Your task to perform on an android device: turn off javascript in the chrome app Image 0: 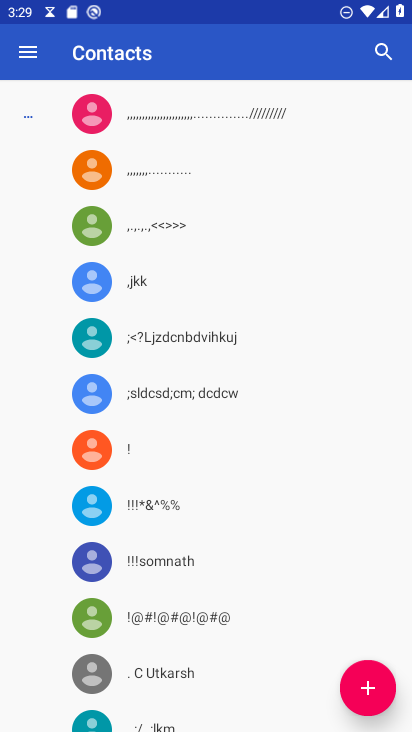
Step 0: press home button
Your task to perform on an android device: turn off javascript in the chrome app Image 1: 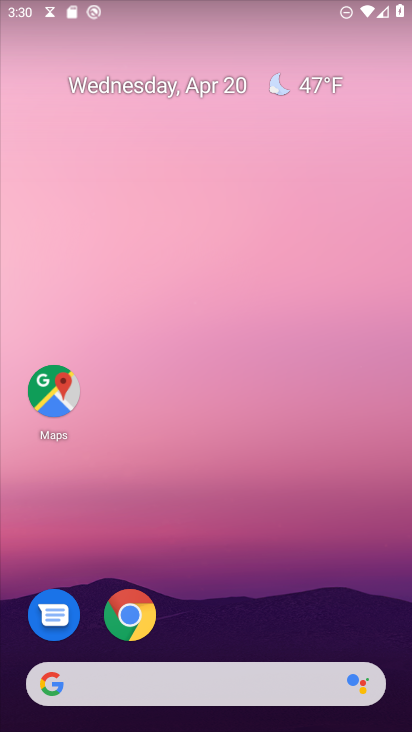
Step 1: click (132, 614)
Your task to perform on an android device: turn off javascript in the chrome app Image 2: 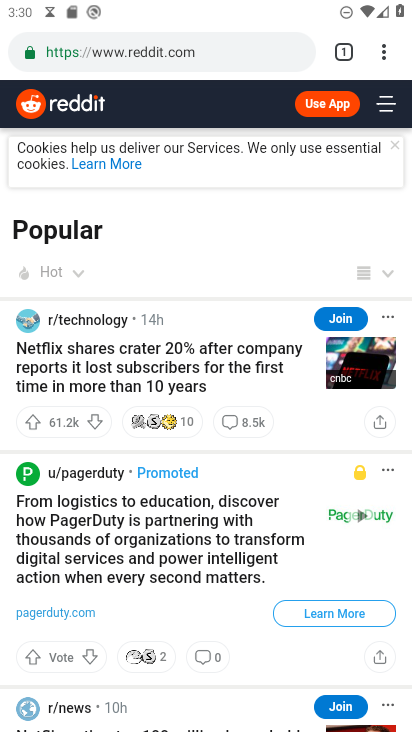
Step 2: click (384, 43)
Your task to perform on an android device: turn off javascript in the chrome app Image 3: 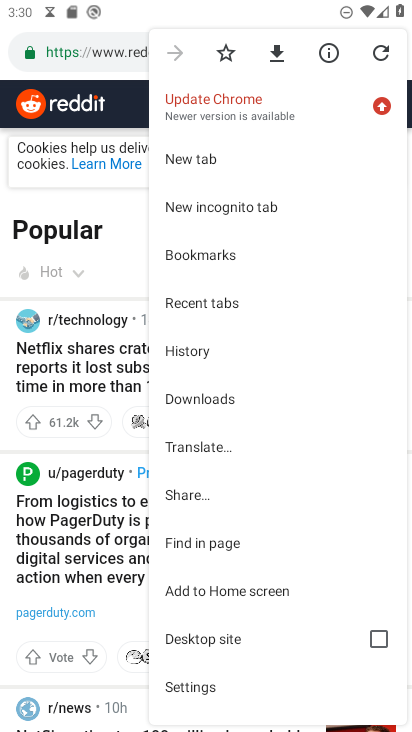
Step 3: click (199, 686)
Your task to perform on an android device: turn off javascript in the chrome app Image 4: 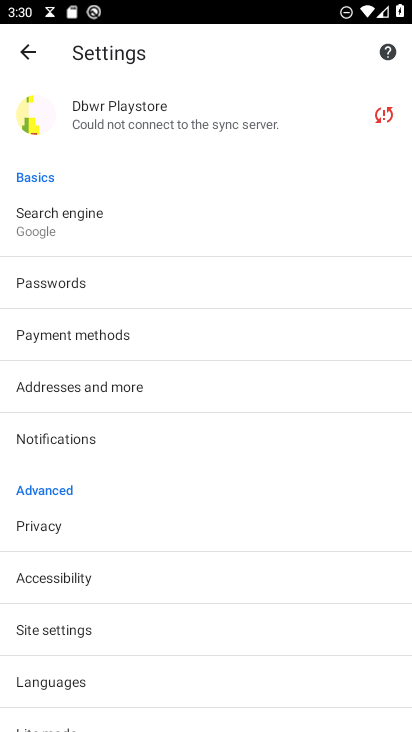
Step 4: click (73, 630)
Your task to perform on an android device: turn off javascript in the chrome app Image 5: 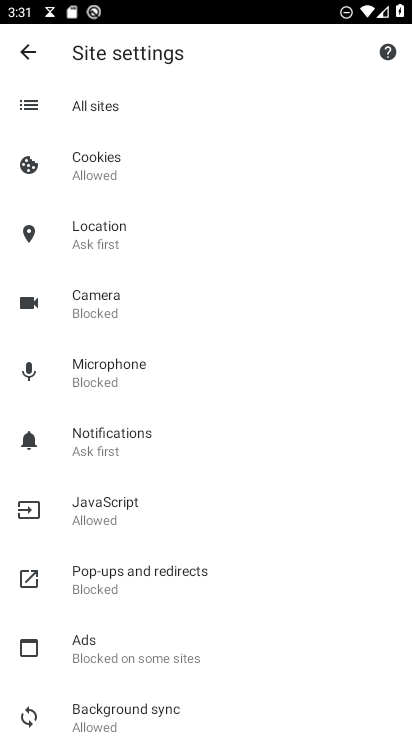
Step 5: click (118, 500)
Your task to perform on an android device: turn off javascript in the chrome app Image 6: 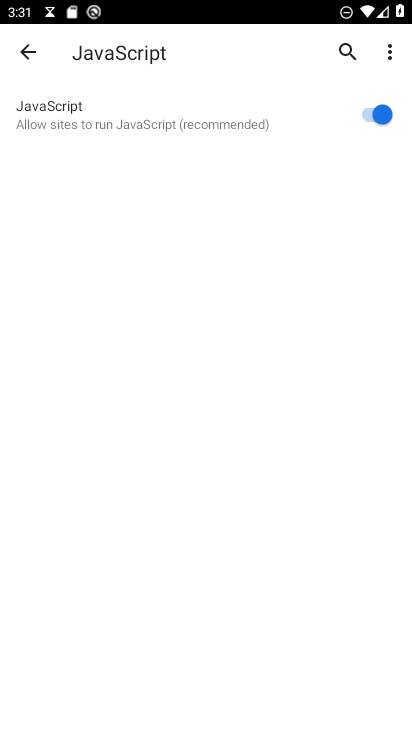
Step 6: click (364, 111)
Your task to perform on an android device: turn off javascript in the chrome app Image 7: 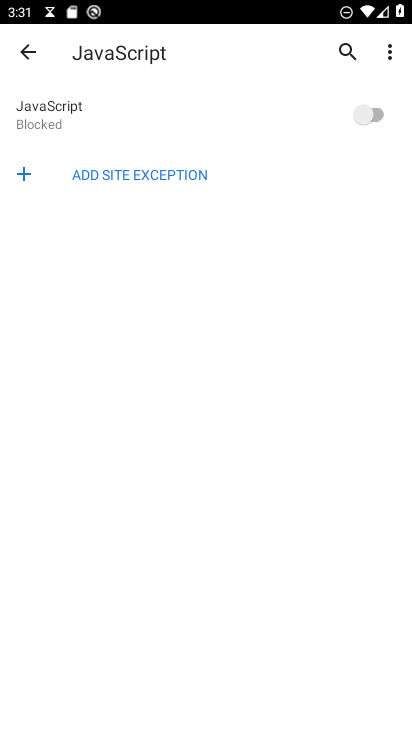
Step 7: task complete